Your task to perform on an android device: turn notification dots on Image 0: 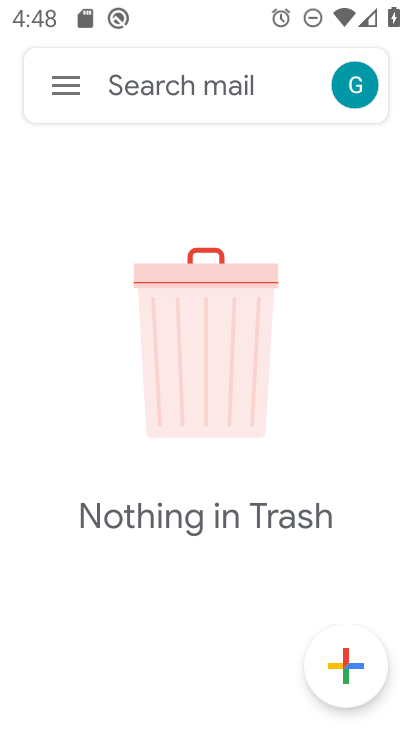
Step 0: press back button
Your task to perform on an android device: turn notification dots on Image 1: 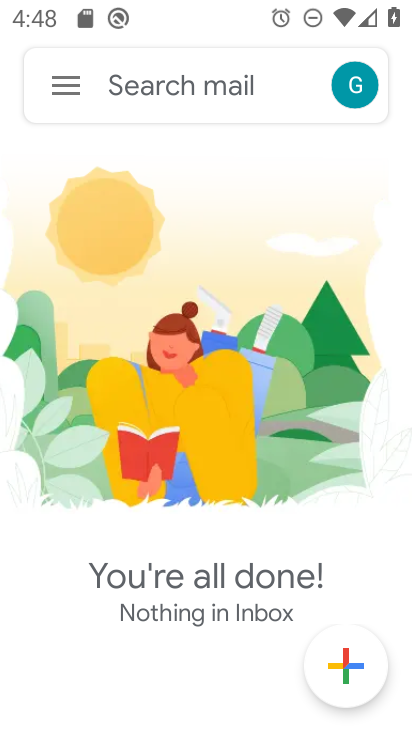
Step 1: press back button
Your task to perform on an android device: turn notification dots on Image 2: 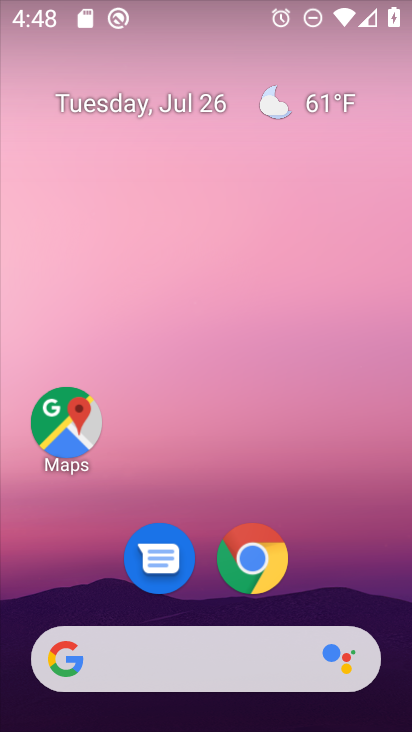
Step 2: drag from (63, 584) to (217, 3)
Your task to perform on an android device: turn notification dots on Image 3: 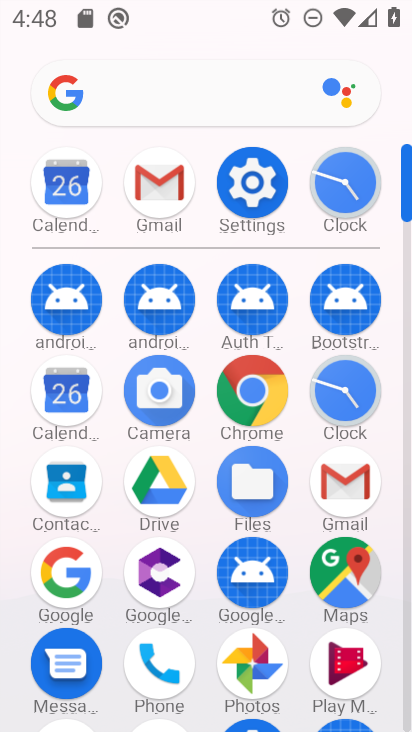
Step 3: click (245, 185)
Your task to perform on an android device: turn notification dots on Image 4: 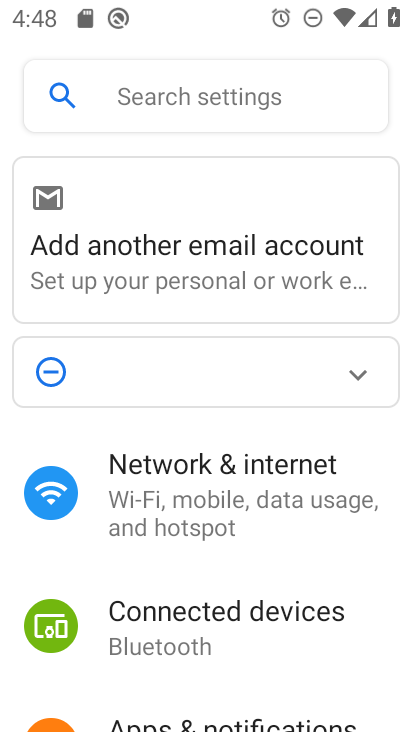
Step 4: click (172, 712)
Your task to perform on an android device: turn notification dots on Image 5: 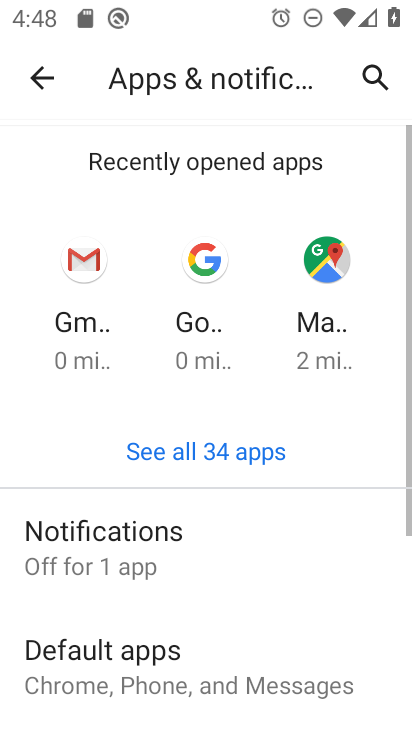
Step 5: drag from (236, 632) to (287, 14)
Your task to perform on an android device: turn notification dots on Image 6: 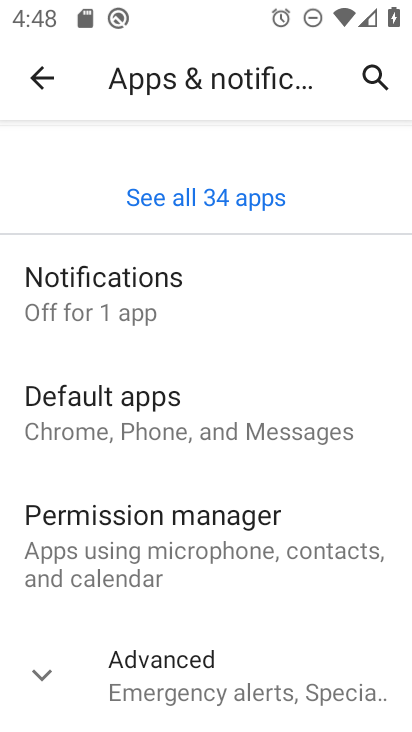
Step 6: click (150, 668)
Your task to perform on an android device: turn notification dots on Image 7: 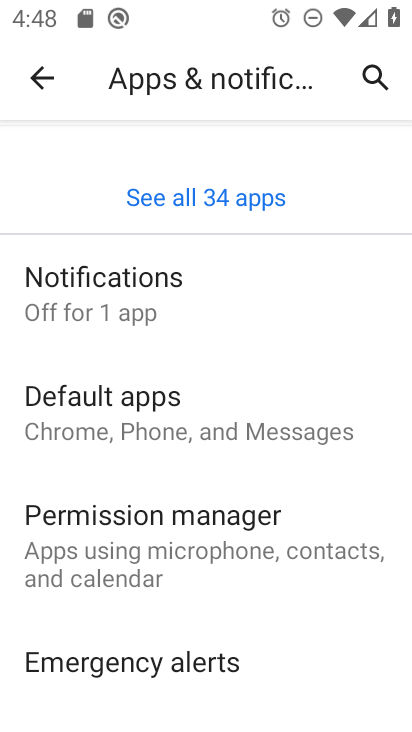
Step 7: drag from (177, 633) to (262, 6)
Your task to perform on an android device: turn notification dots on Image 8: 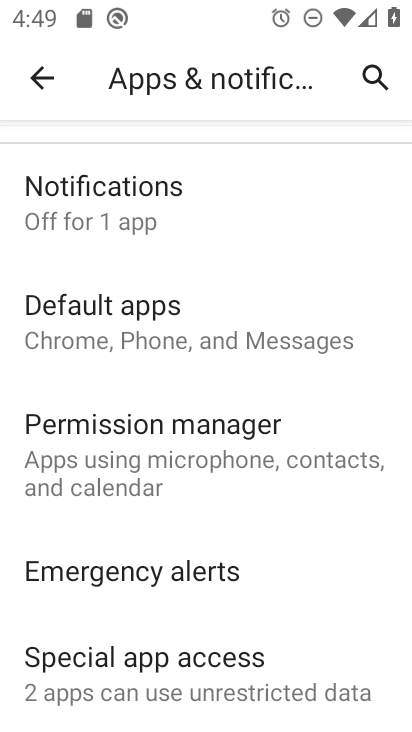
Step 8: drag from (177, 621) to (274, 7)
Your task to perform on an android device: turn notification dots on Image 9: 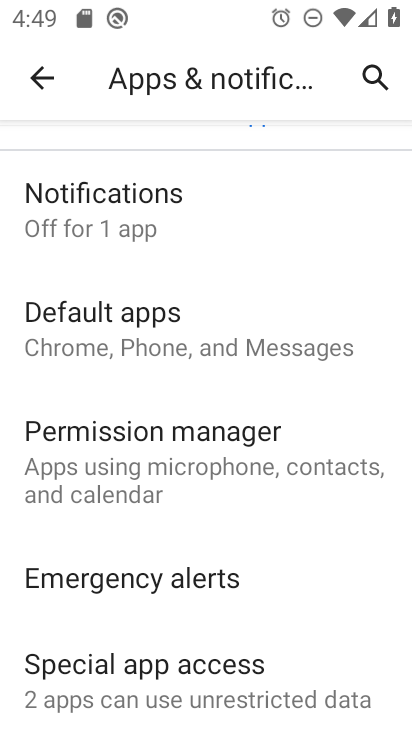
Step 9: drag from (159, 215) to (172, 661)
Your task to perform on an android device: turn notification dots on Image 10: 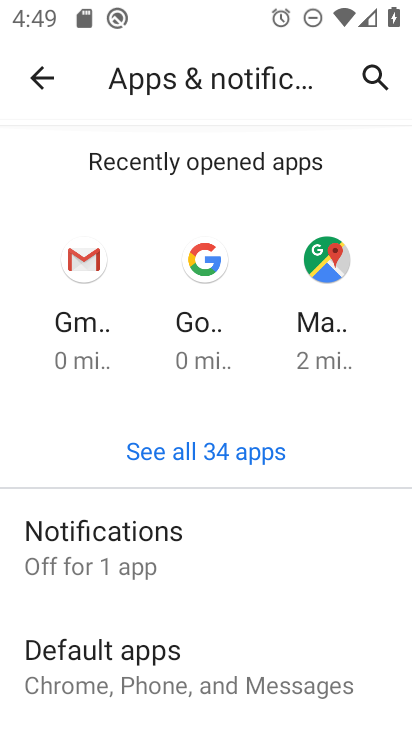
Step 10: click (93, 541)
Your task to perform on an android device: turn notification dots on Image 11: 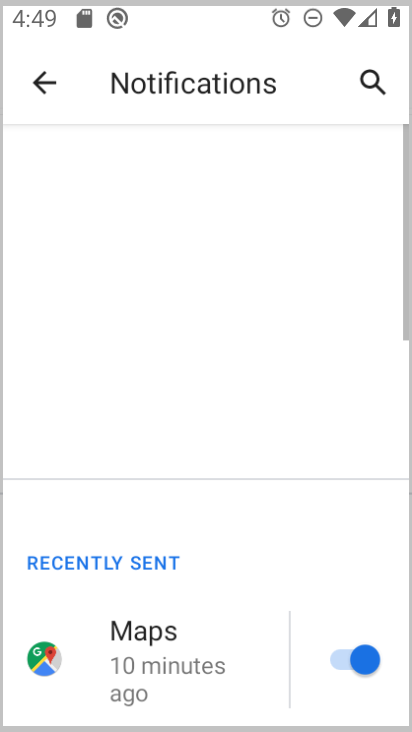
Step 11: drag from (135, 595) to (254, 49)
Your task to perform on an android device: turn notification dots on Image 12: 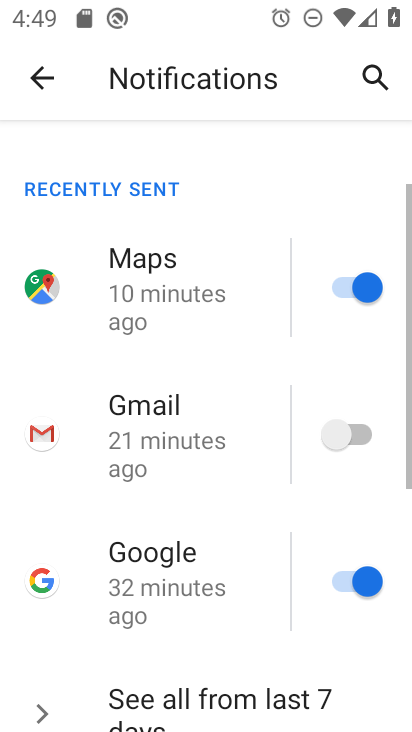
Step 12: drag from (180, 669) to (235, 75)
Your task to perform on an android device: turn notification dots on Image 13: 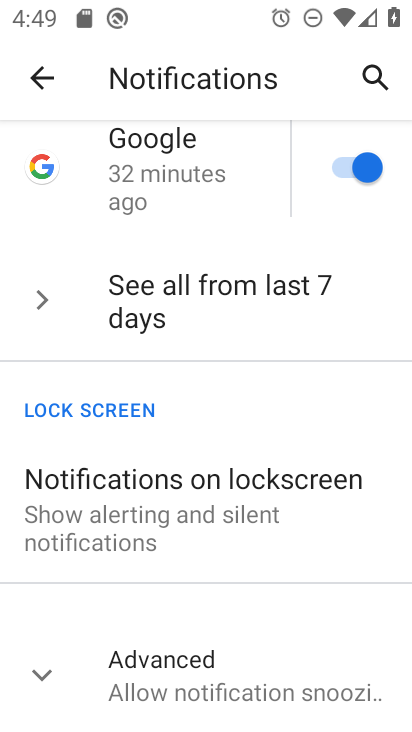
Step 13: click (178, 683)
Your task to perform on an android device: turn notification dots on Image 14: 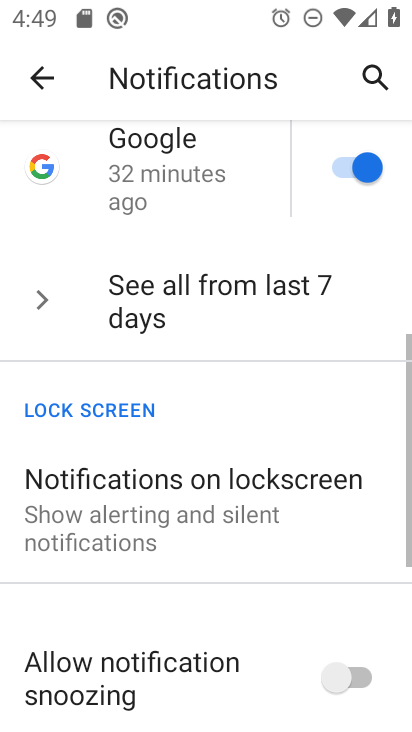
Step 14: task complete